Your task to perform on an android device: Show me recent news Image 0: 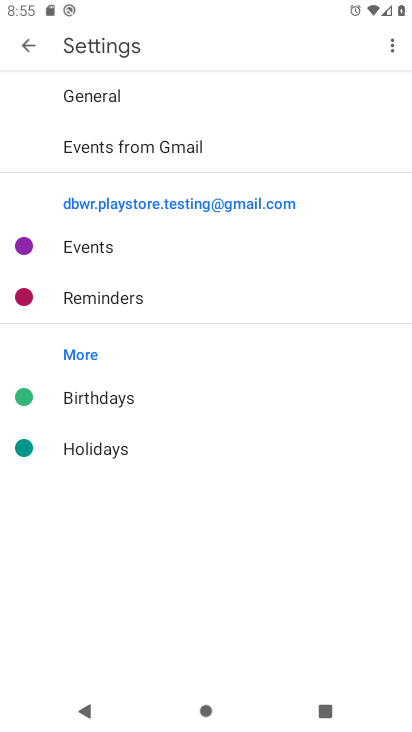
Step 0: press home button
Your task to perform on an android device: Show me recent news Image 1: 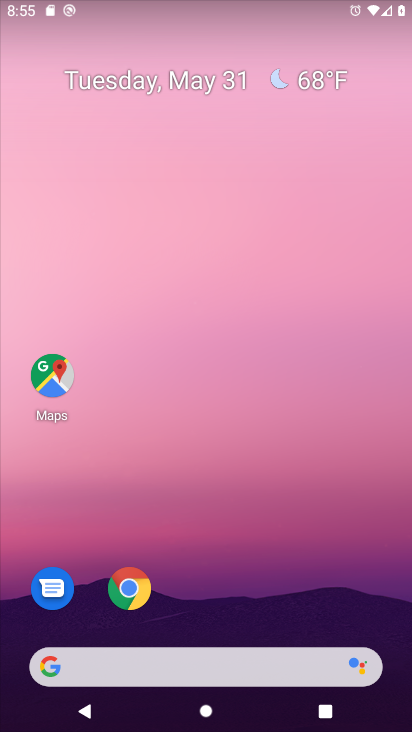
Step 1: click (49, 675)
Your task to perform on an android device: Show me recent news Image 2: 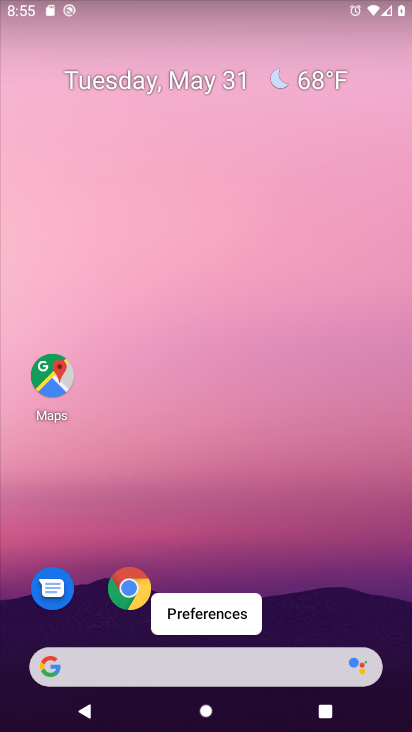
Step 2: click (54, 669)
Your task to perform on an android device: Show me recent news Image 3: 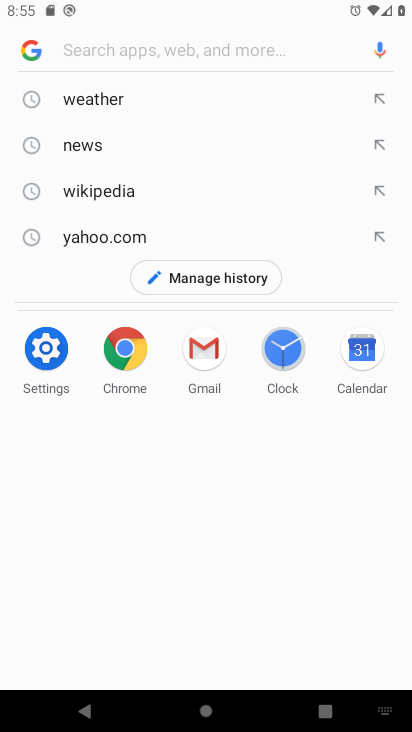
Step 3: click (97, 152)
Your task to perform on an android device: Show me recent news Image 4: 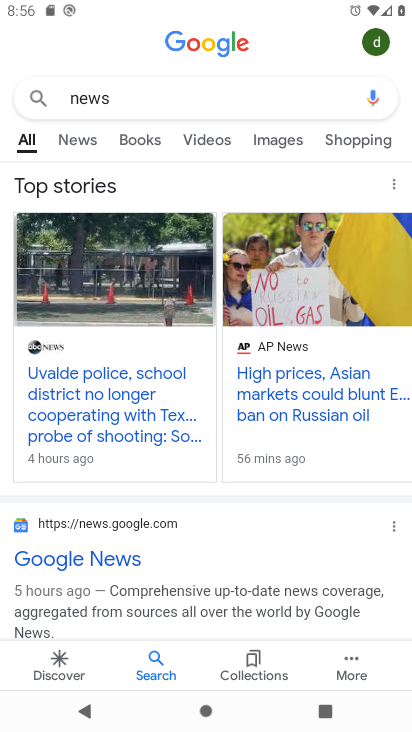
Step 4: click (85, 141)
Your task to perform on an android device: Show me recent news Image 5: 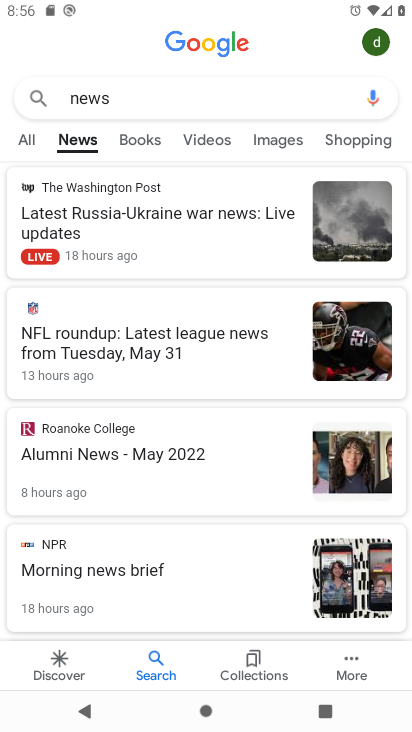
Step 5: task complete